Your task to perform on an android device: change keyboard looks Image 0: 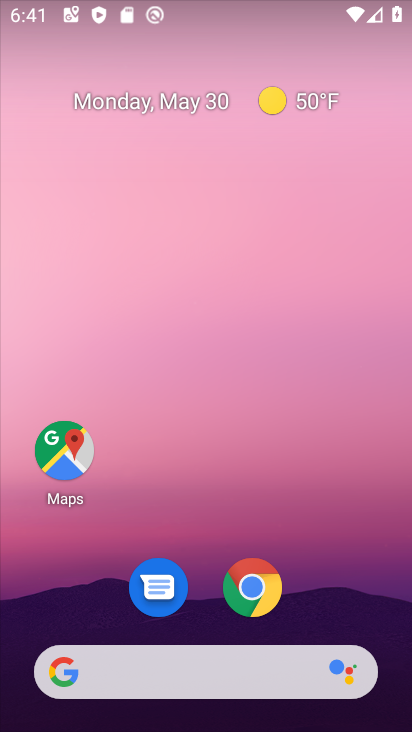
Step 0: drag from (319, 498) to (194, 29)
Your task to perform on an android device: change keyboard looks Image 1: 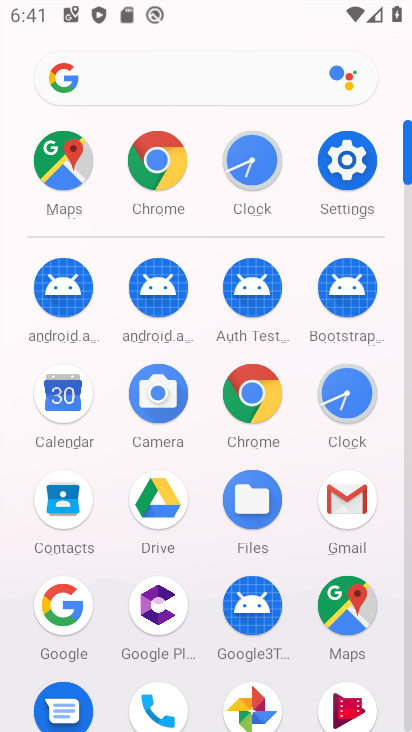
Step 1: drag from (24, 618) to (15, 277)
Your task to perform on an android device: change keyboard looks Image 2: 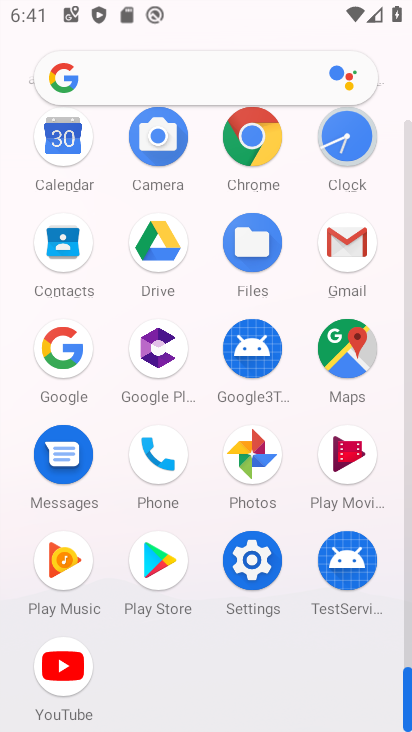
Step 2: click (255, 557)
Your task to perform on an android device: change keyboard looks Image 3: 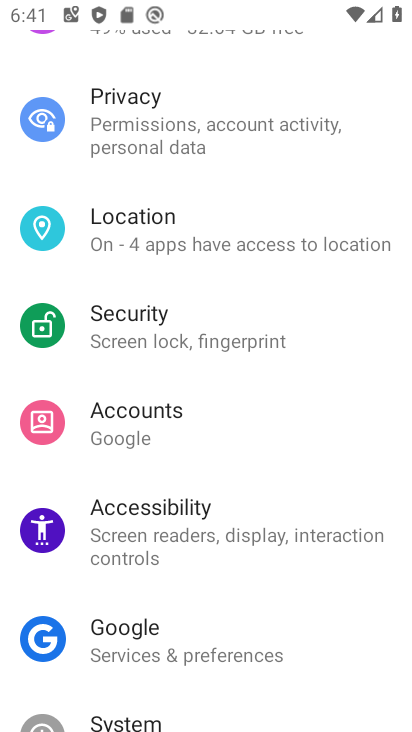
Step 3: drag from (277, 653) to (277, 187)
Your task to perform on an android device: change keyboard looks Image 4: 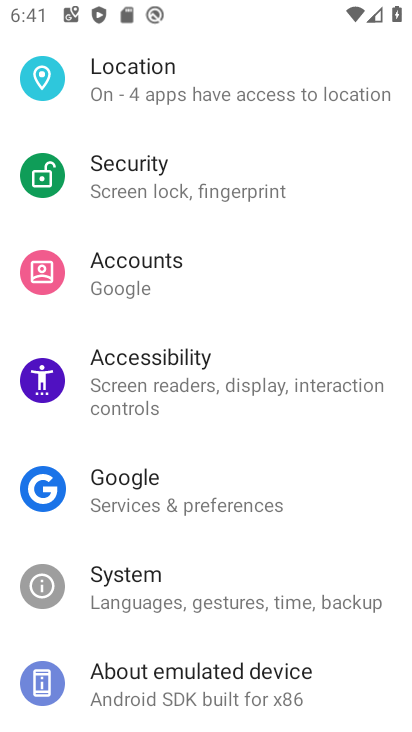
Step 4: click (218, 571)
Your task to perform on an android device: change keyboard looks Image 5: 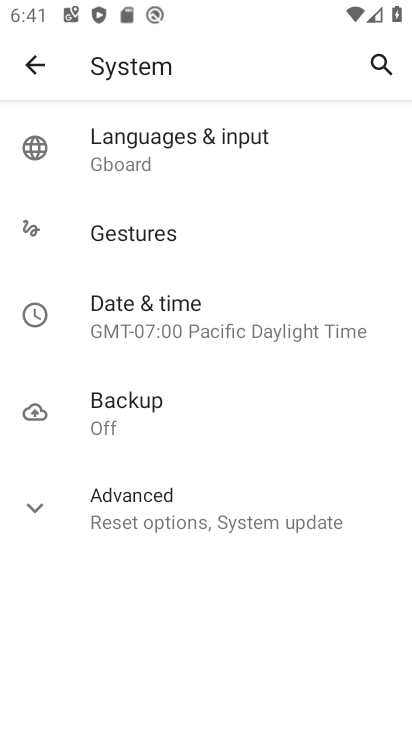
Step 5: click (50, 508)
Your task to perform on an android device: change keyboard looks Image 6: 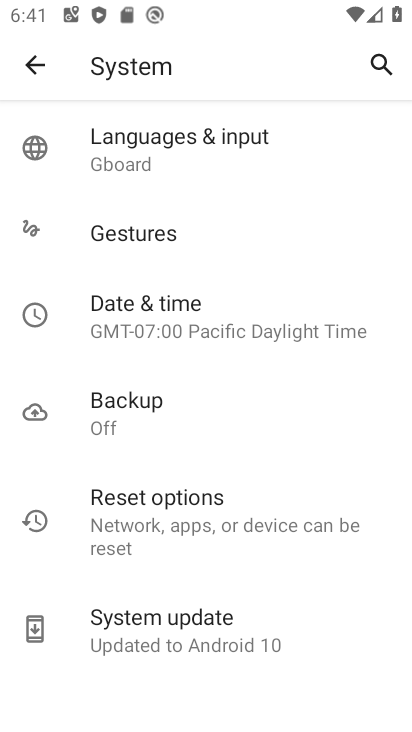
Step 6: click (192, 140)
Your task to perform on an android device: change keyboard looks Image 7: 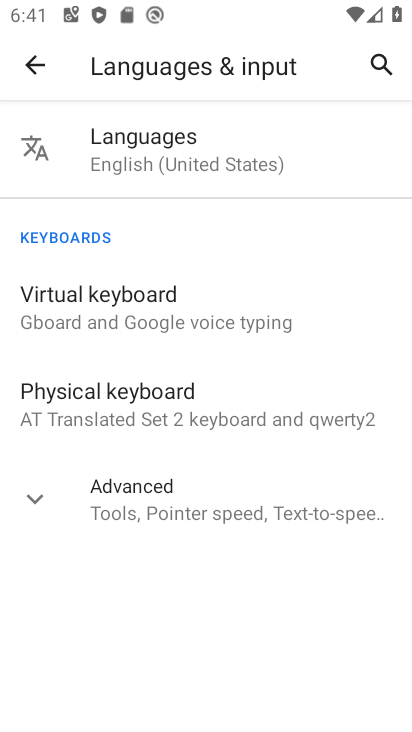
Step 7: click (206, 299)
Your task to perform on an android device: change keyboard looks Image 8: 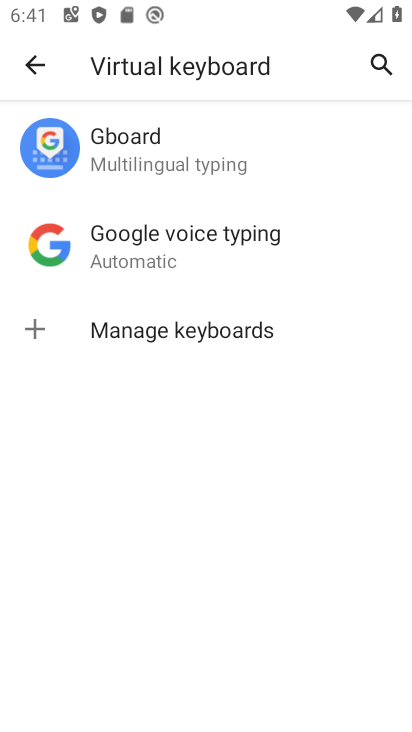
Step 8: click (198, 159)
Your task to perform on an android device: change keyboard looks Image 9: 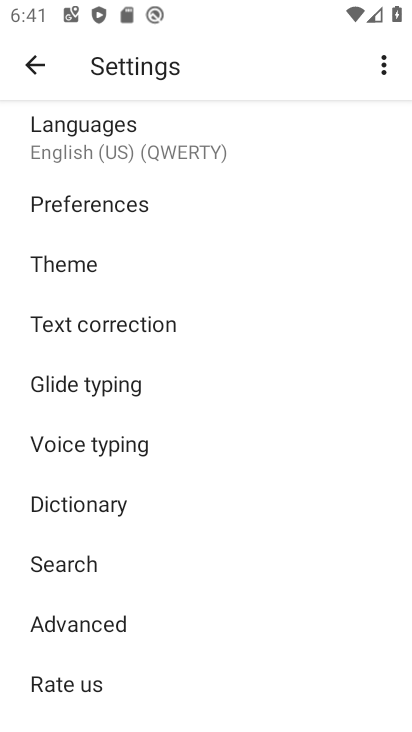
Step 9: click (91, 266)
Your task to perform on an android device: change keyboard looks Image 10: 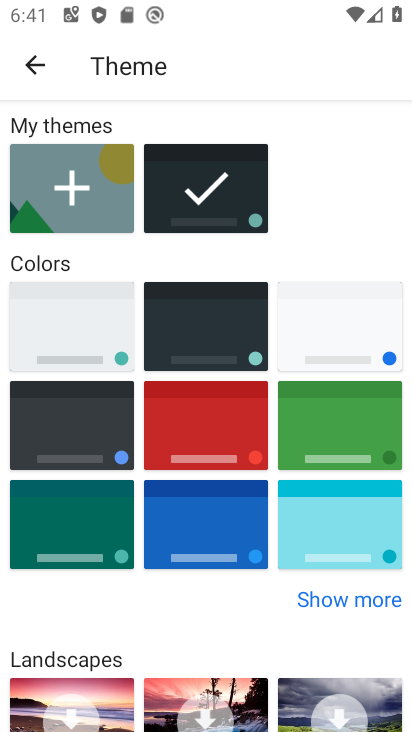
Step 10: click (290, 321)
Your task to perform on an android device: change keyboard looks Image 11: 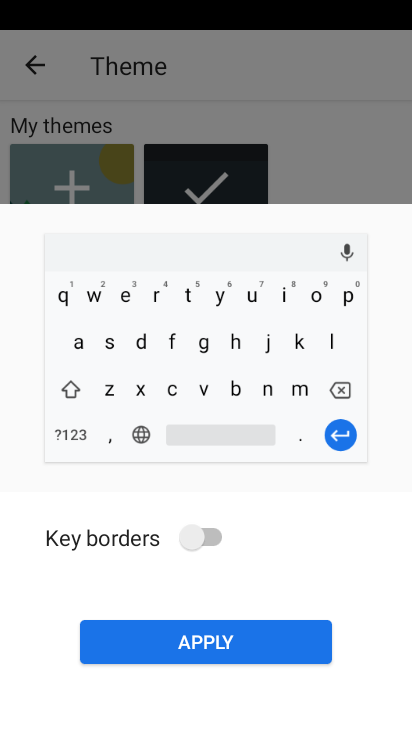
Step 11: click (216, 639)
Your task to perform on an android device: change keyboard looks Image 12: 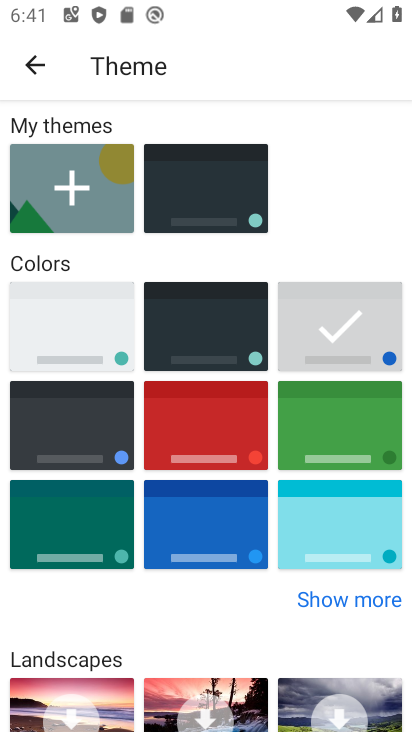
Step 12: task complete